Your task to perform on an android device: open app "Facebook Lite" (install if not already installed) and enter user name: "suppers@inbox.com" and password: "downplayed" Image 0: 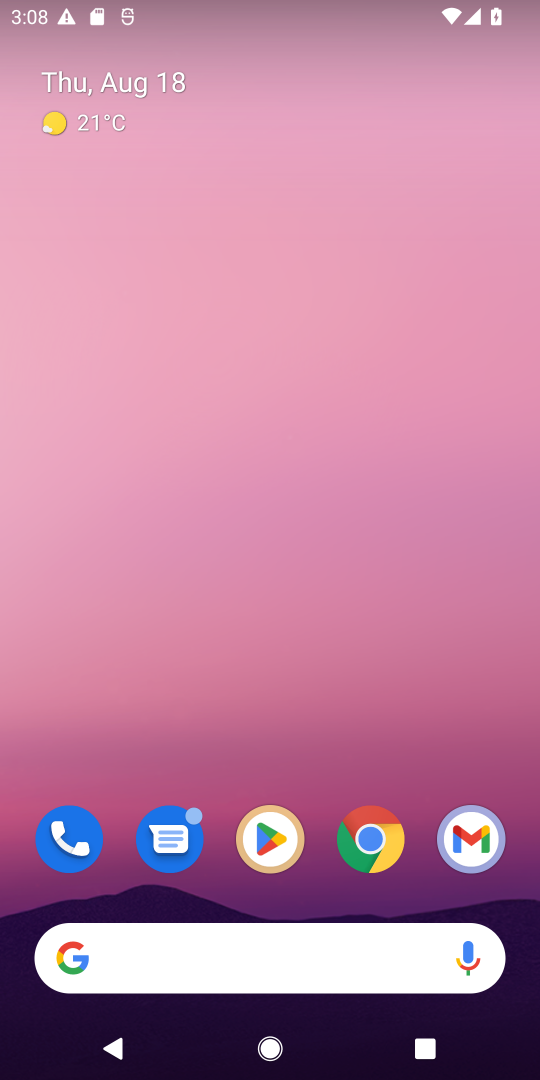
Step 0: click (281, 839)
Your task to perform on an android device: open app "Facebook Lite" (install if not already installed) and enter user name: "suppers@inbox.com" and password: "downplayed" Image 1: 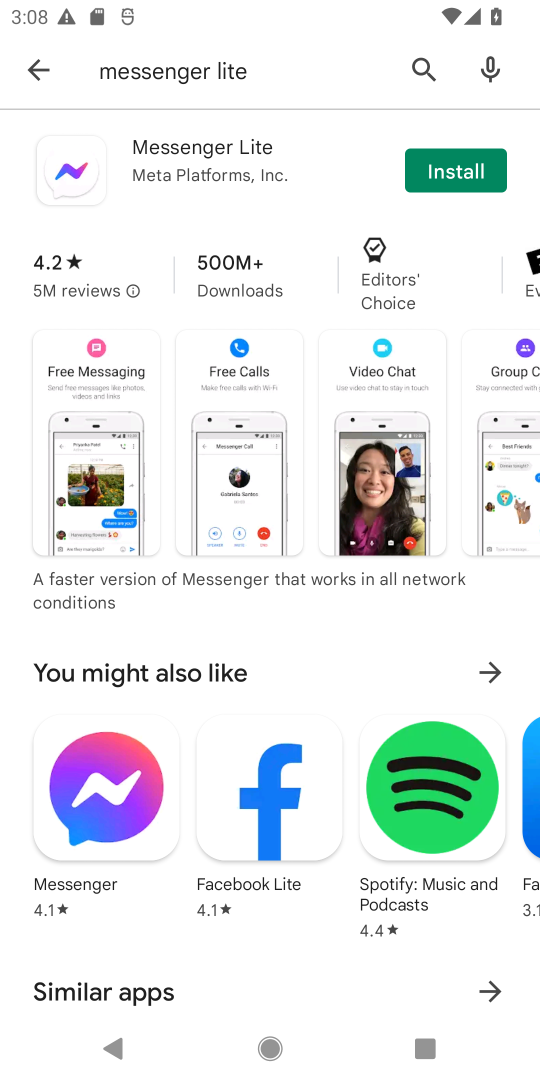
Step 1: click (34, 72)
Your task to perform on an android device: open app "Facebook Lite" (install if not already installed) and enter user name: "suppers@inbox.com" and password: "downplayed" Image 2: 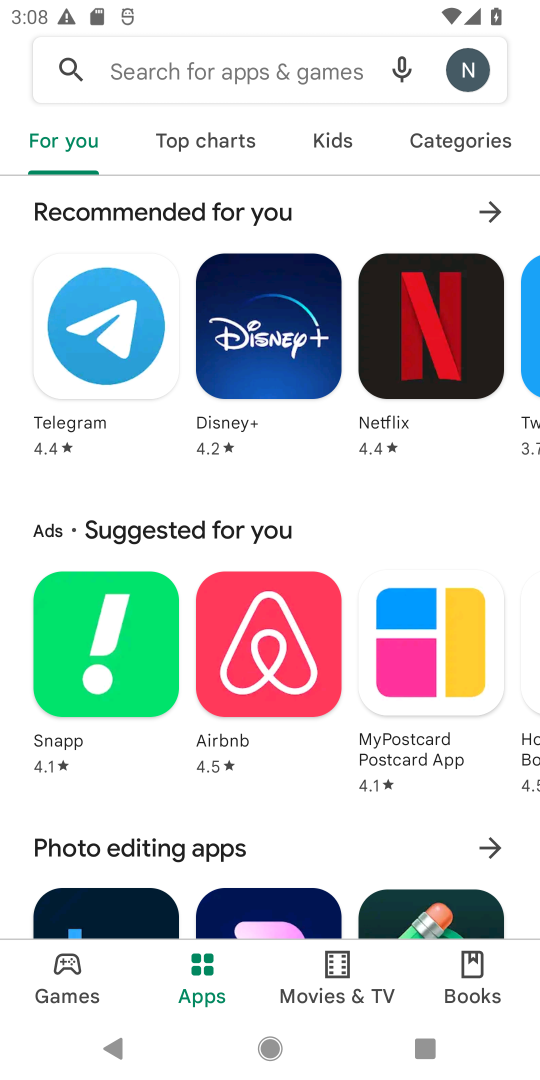
Step 2: click (152, 82)
Your task to perform on an android device: open app "Facebook Lite" (install if not already installed) and enter user name: "suppers@inbox.com" and password: "downplayed" Image 3: 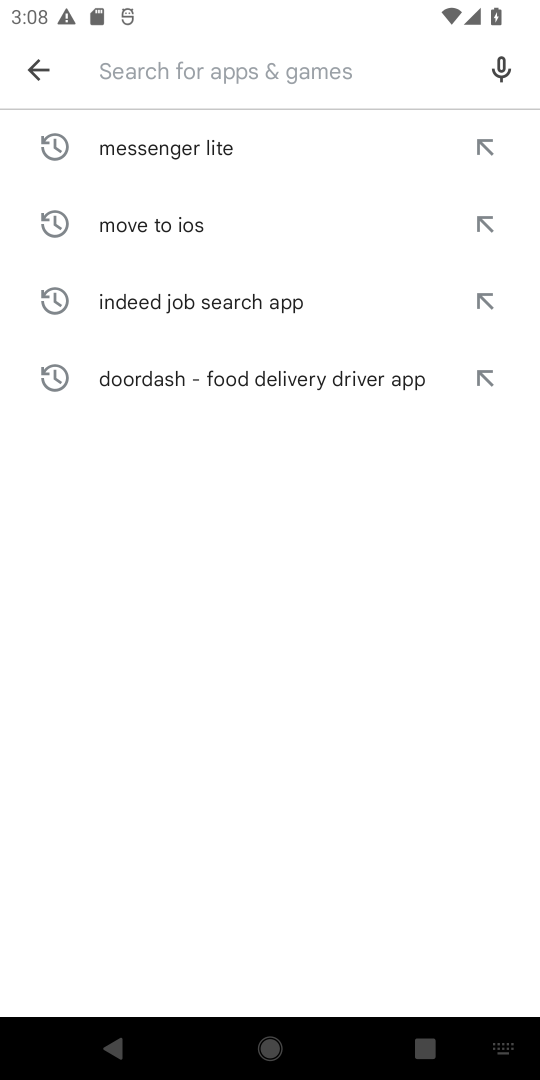
Step 3: type "Facebook Lite"
Your task to perform on an android device: open app "Facebook Lite" (install if not already installed) and enter user name: "suppers@inbox.com" and password: "downplayed" Image 4: 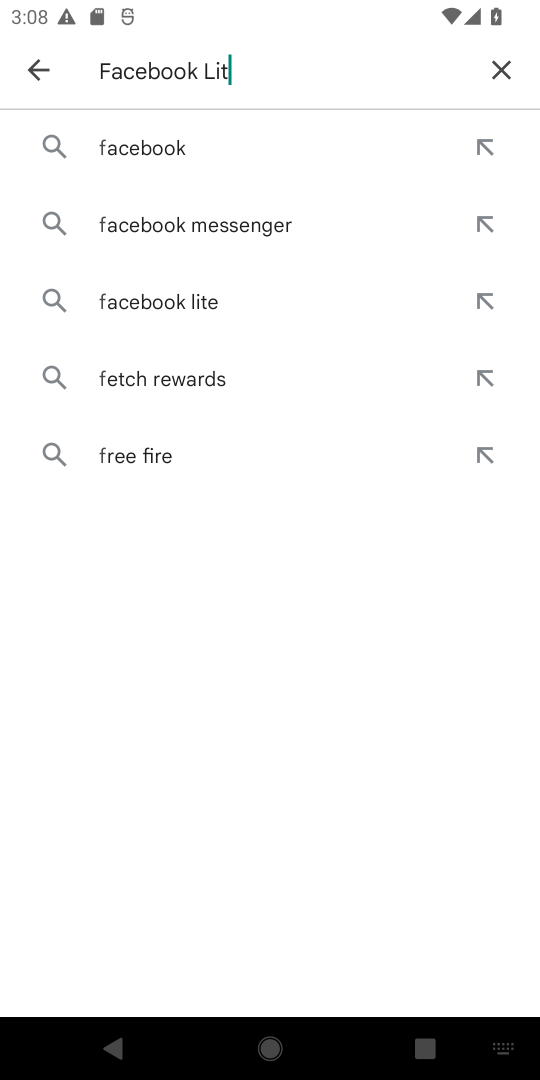
Step 4: type ""
Your task to perform on an android device: open app "Facebook Lite" (install if not already installed) and enter user name: "suppers@inbox.com" and password: "downplayed" Image 5: 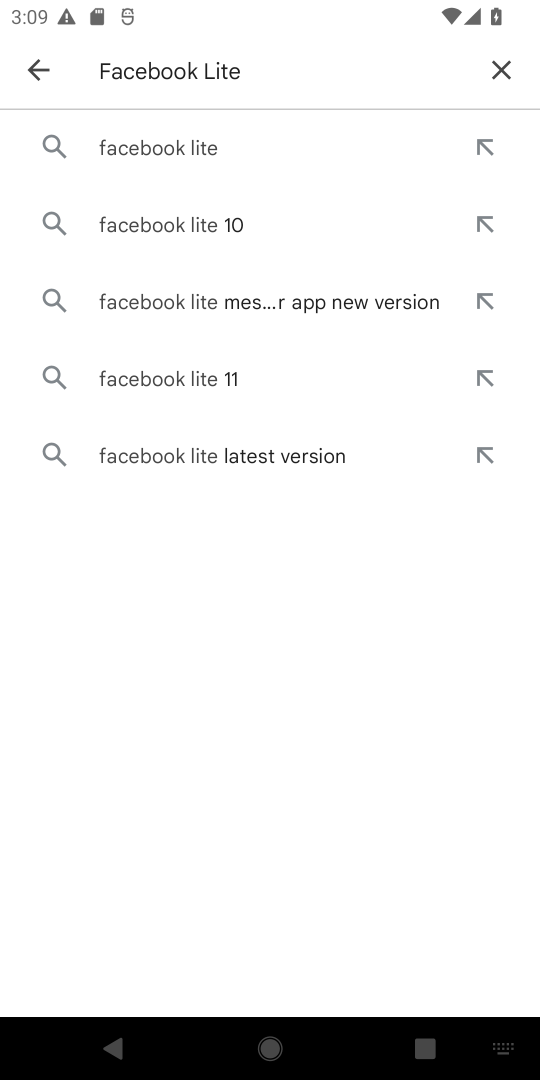
Step 5: click (108, 147)
Your task to perform on an android device: open app "Facebook Lite" (install if not already installed) and enter user name: "suppers@inbox.com" and password: "downplayed" Image 6: 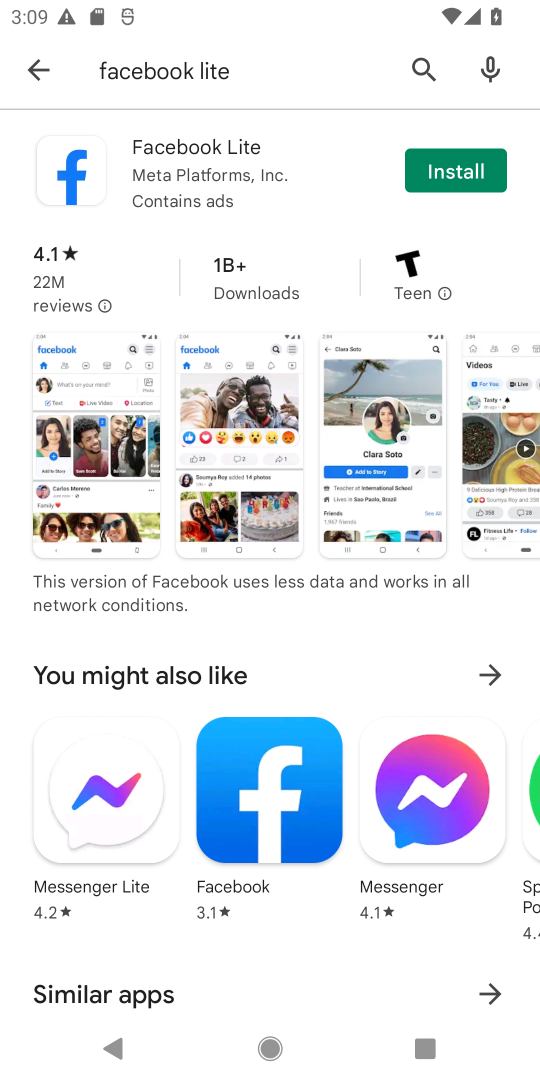
Step 6: click (443, 156)
Your task to perform on an android device: open app "Facebook Lite" (install if not already installed) and enter user name: "suppers@inbox.com" and password: "downplayed" Image 7: 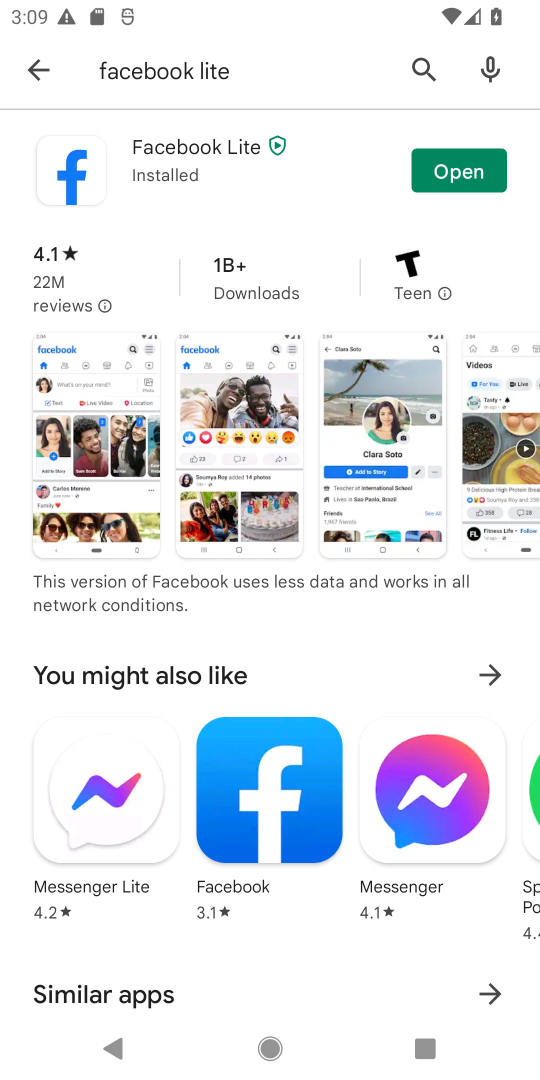
Step 7: click (434, 141)
Your task to perform on an android device: open app "Facebook Lite" (install if not already installed) and enter user name: "suppers@inbox.com" and password: "downplayed" Image 8: 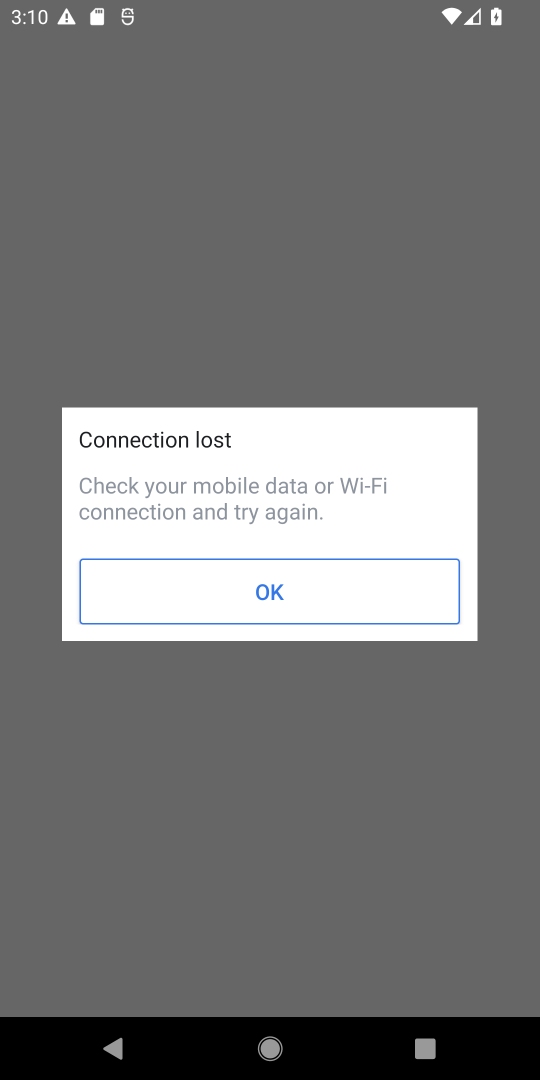
Step 8: click (196, 619)
Your task to perform on an android device: open app "Facebook Lite" (install if not already installed) and enter user name: "suppers@inbox.com" and password: "downplayed" Image 9: 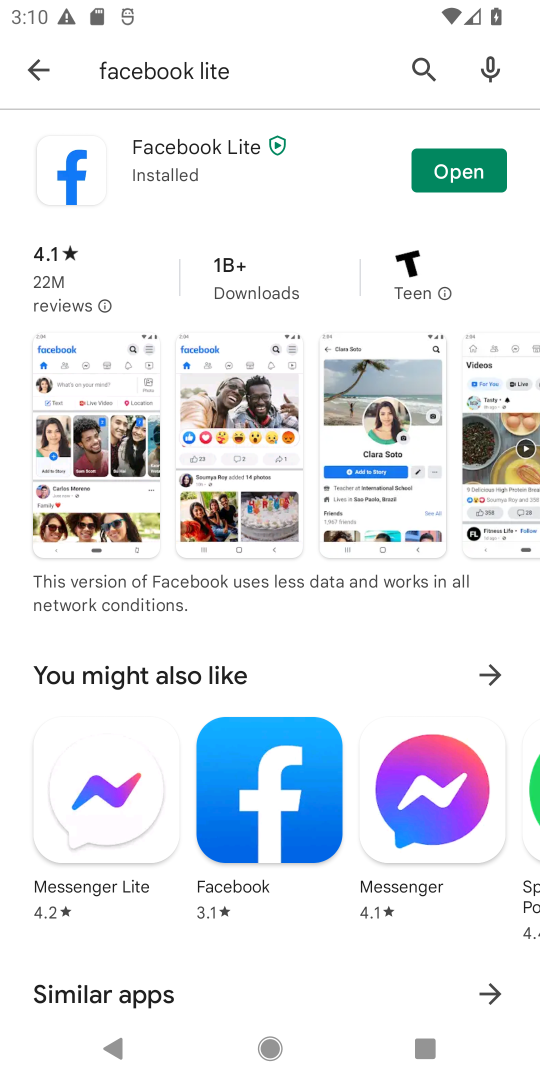
Step 9: task complete